Your task to perform on an android device: open a bookmark in the chrome app Image 0: 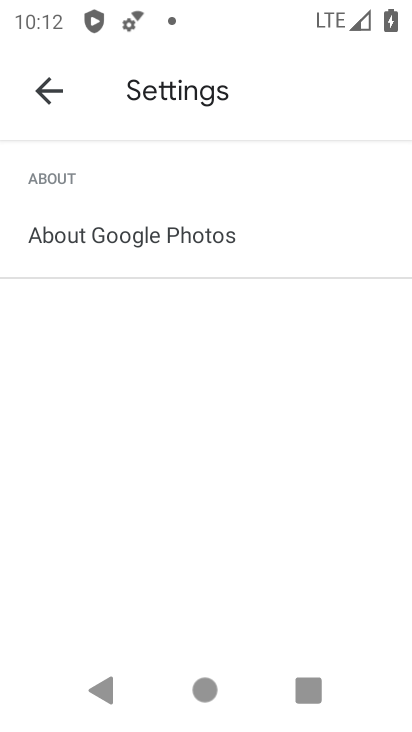
Step 0: press home button
Your task to perform on an android device: open a bookmark in the chrome app Image 1: 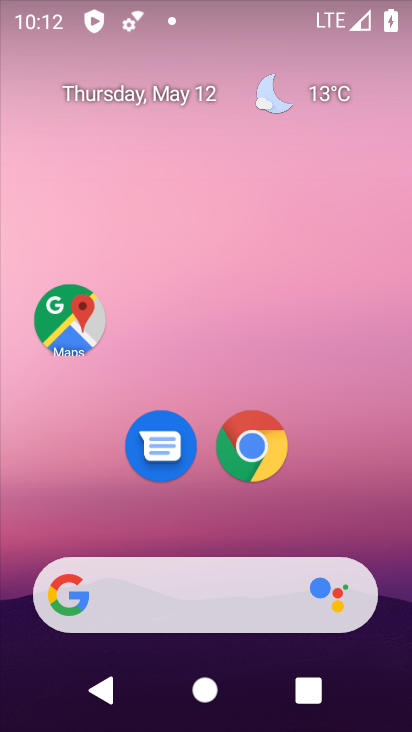
Step 1: drag from (195, 573) to (218, 100)
Your task to perform on an android device: open a bookmark in the chrome app Image 2: 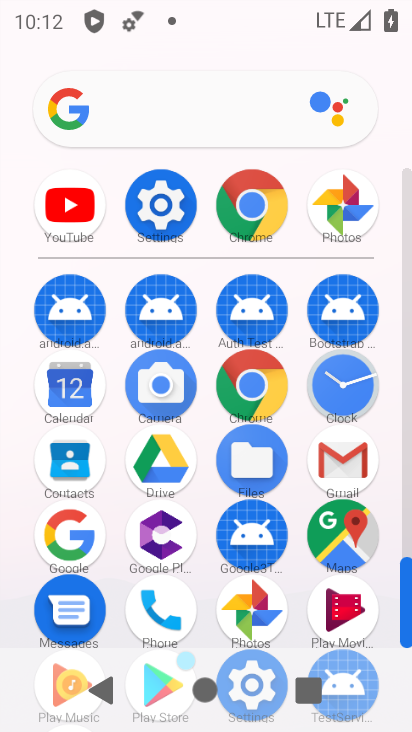
Step 2: click (253, 395)
Your task to perform on an android device: open a bookmark in the chrome app Image 3: 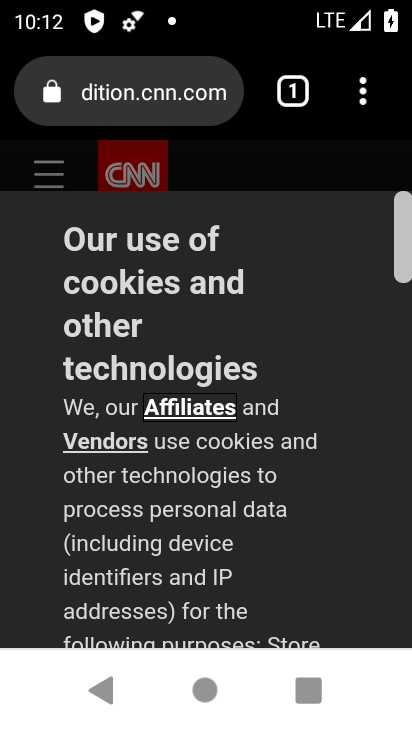
Step 3: task complete